Your task to perform on an android device: Go to Wikipedia Image 0: 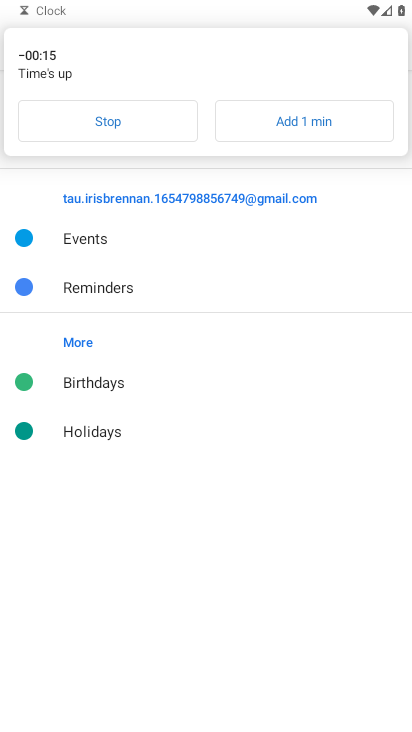
Step 0: click (138, 119)
Your task to perform on an android device: Go to Wikipedia Image 1: 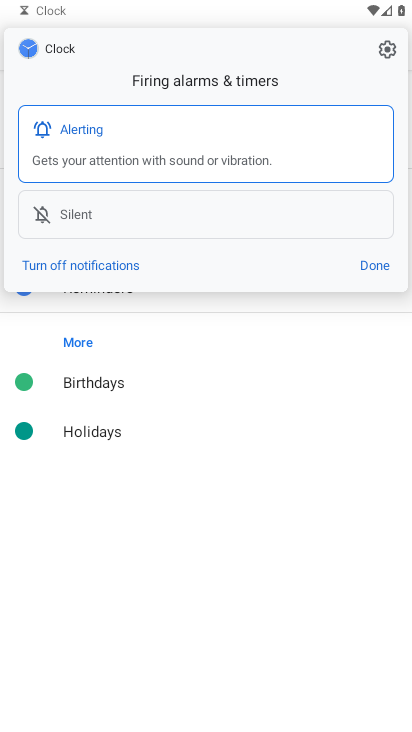
Step 1: press back button
Your task to perform on an android device: Go to Wikipedia Image 2: 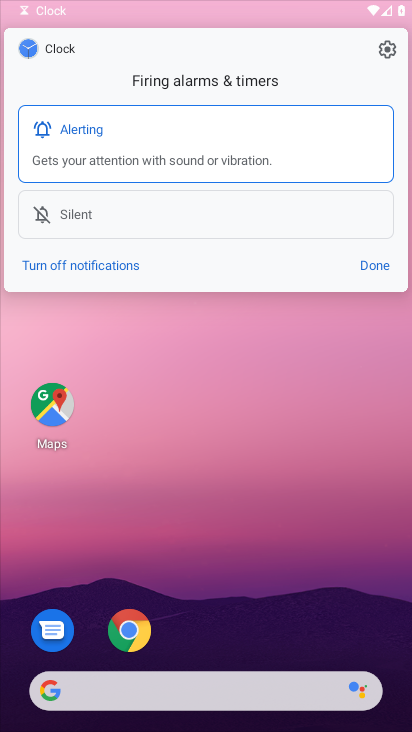
Step 2: press home button
Your task to perform on an android device: Go to Wikipedia Image 3: 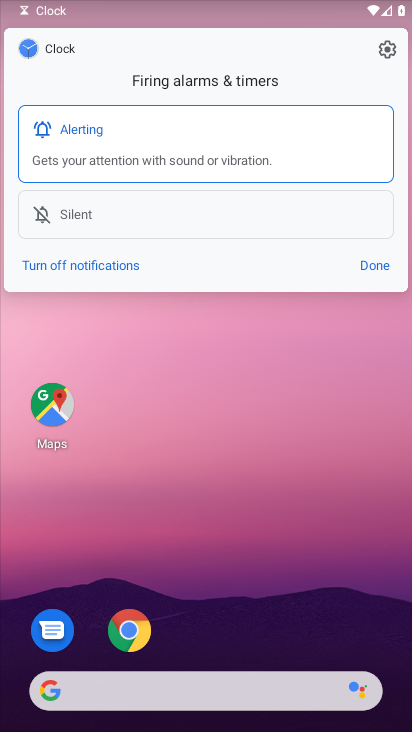
Step 3: drag from (212, 306) to (194, 166)
Your task to perform on an android device: Go to Wikipedia Image 4: 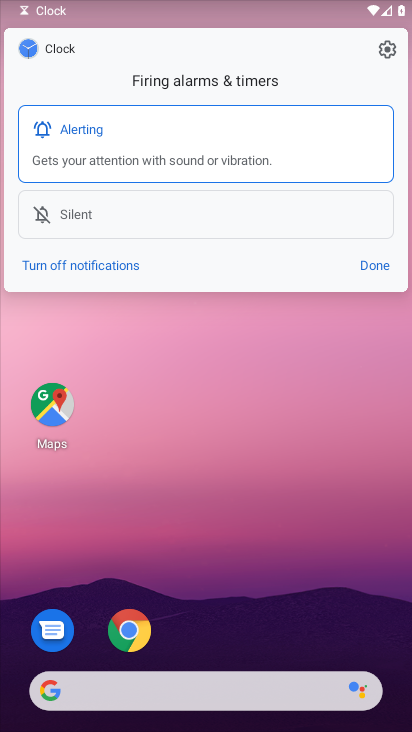
Step 4: click (227, 454)
Your task to perform on an android device: Go to Wikipedia Image 5: 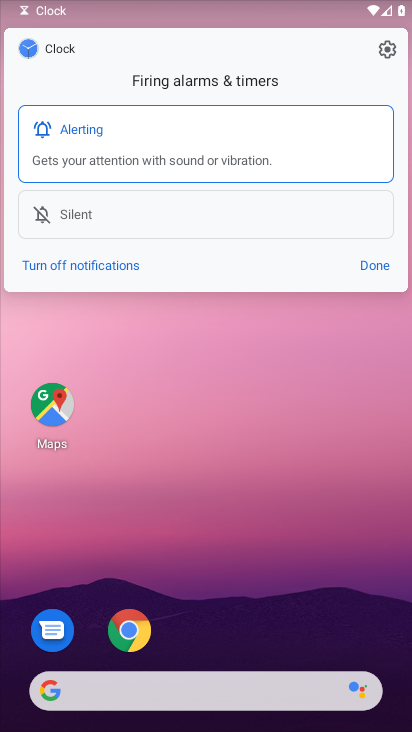
Step 5: click (244, 450)
Your task to perform on an android device: Go to Wikipedia Image 6: 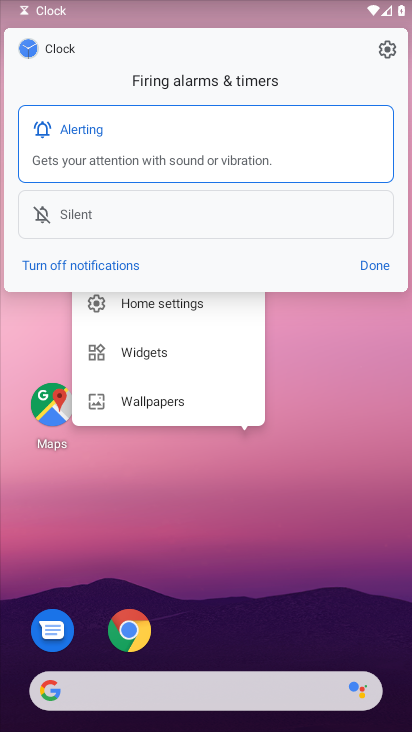
Step 6: click (300, 432)
Your task to perform on an android device: Go to Wikipedia Image 7: 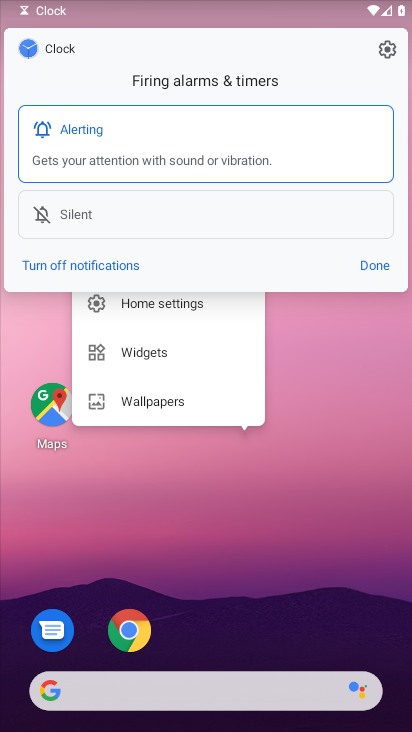
Step 7: click (316, 417)
Your task to perform on an android device: Go to Wikipedia Image 8: 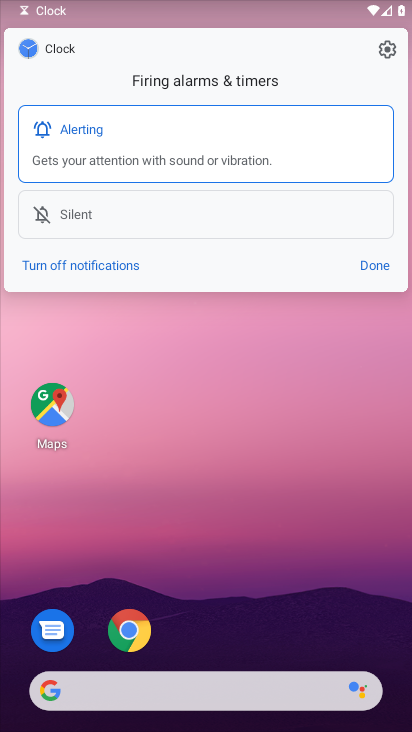
Step 8: click (322, 411)
Your task to perform on an android device: Go to Wikipedia Image 9: 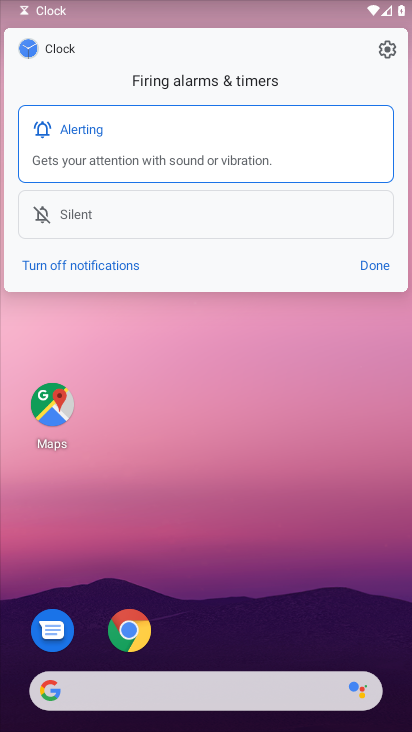
Step 9: click (334, 407)
Your task to perform on an android device: Go to Wikipedia Image 10: 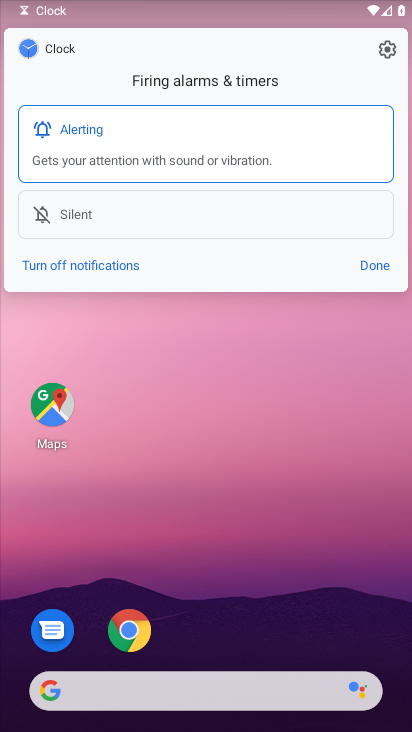
Step 10: click (375, 265)
Your task to perform on an android device: Go to Wikipedia Image 11: 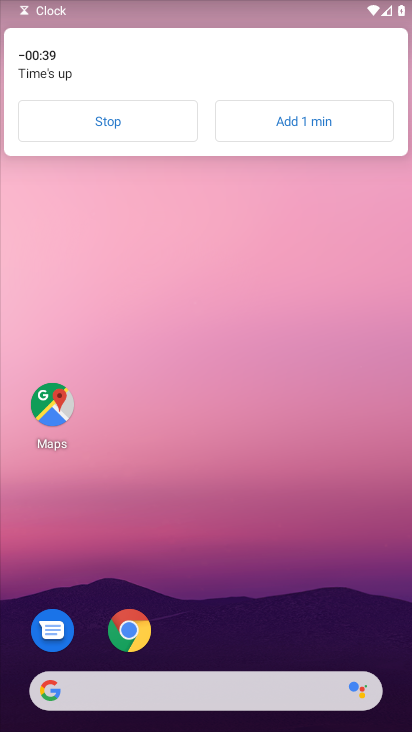
Step 11: click (385, 266)
Your task to perform on an android device: Go to Wikipedia Image 12: 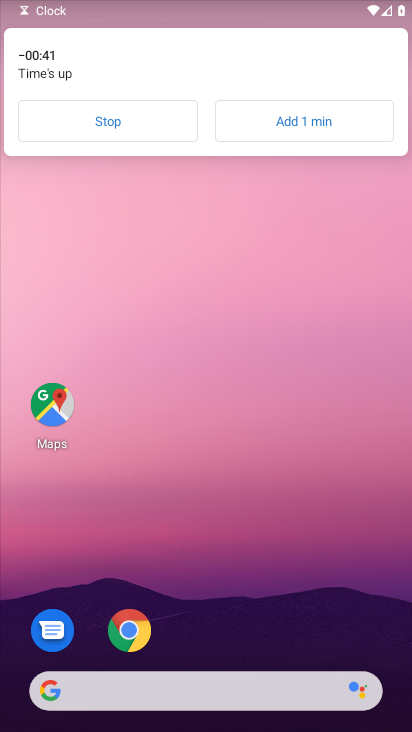
Step 12: drag from (366, 274) to (105, 116)
Your task to perform on an android device: Go to Wikipedia Image 13: 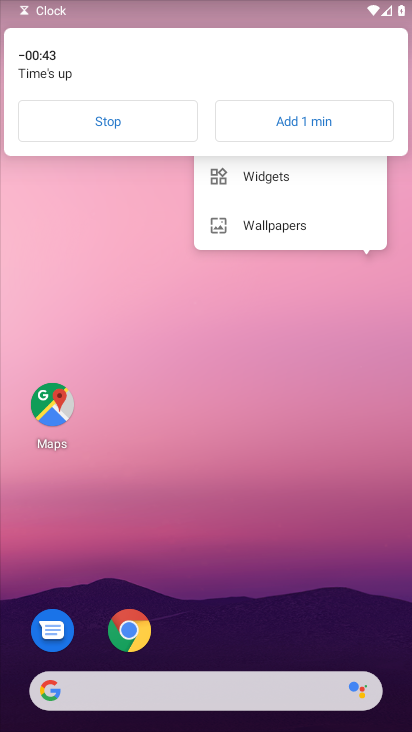
Step 13: click (107, 121)
Your task to perform on an android device: Go to Wikipedia Image 14: 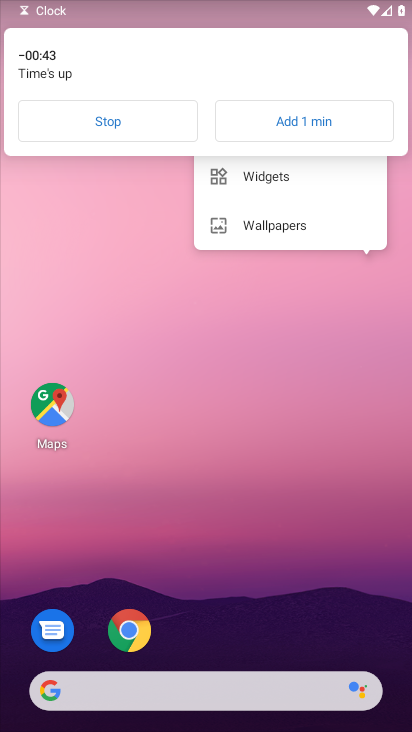
Step 14: click (139, 116)
Your task to perform on an android device: Go to Wikipedia Image 15: 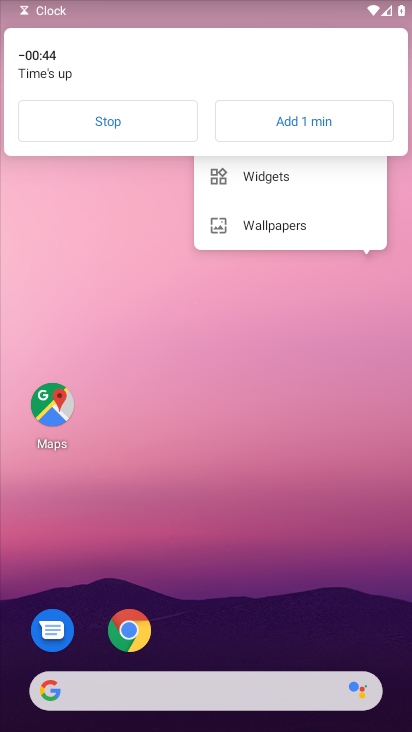
Step 15: click (139, 116)
Your task to perform on an android device: Go to Wikipedia Image 16: 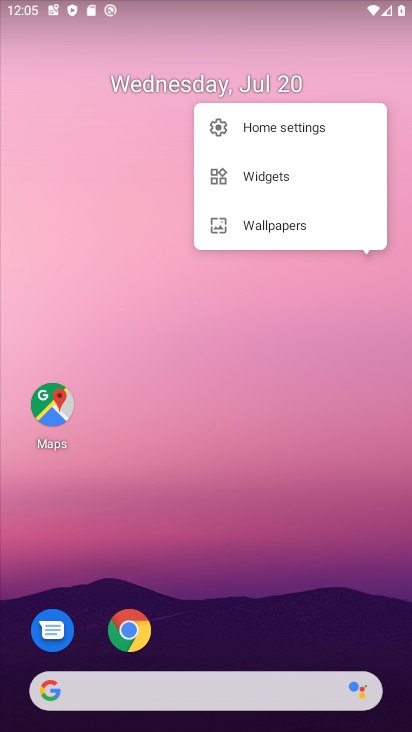
Step 16: drag from (189, 292) to (167, 175)
Your task to perform on an android device: Go to Wikipedia Image 17: 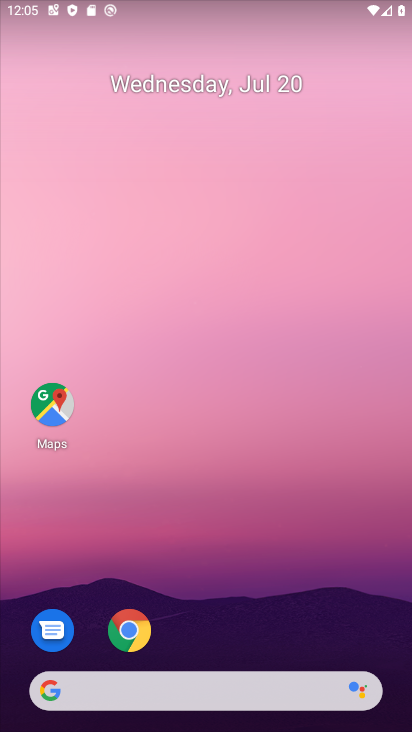
Step 17: drag from (167, 593) to (106, 129)
Your task to perform on an android device: Go to Wikipedia Image 18: 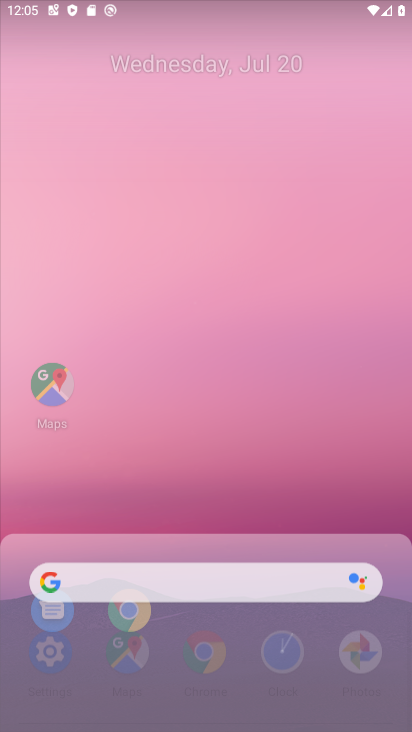
Step 18: drag from (195, 454) to (169, 120)
Your task to perform on an android device: Go to Wikipedia Image 19: 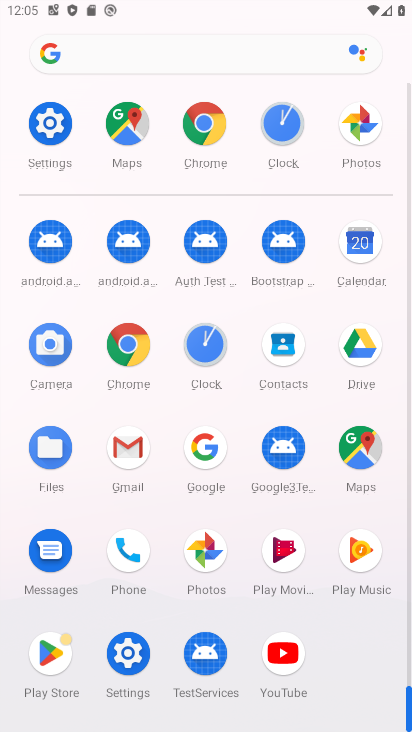
Step 19: drag from (239, 491) to (202, 108)
Your task to perform on an android device: Go to Wikipedia Image 20: 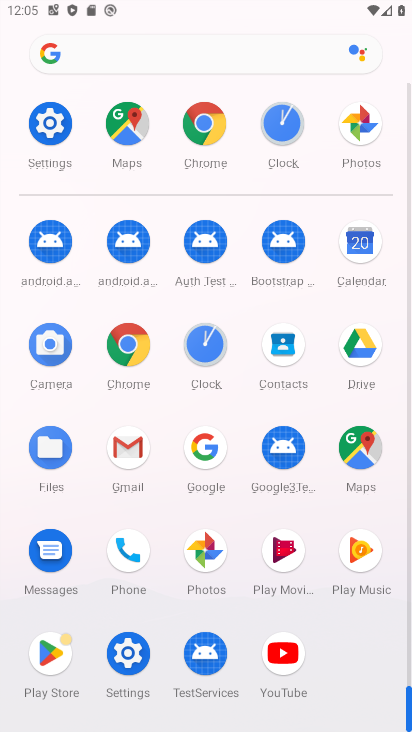
Step 20: click (204, 113)
Your task to perform on an android device: Go to Wikipedia Image 21: 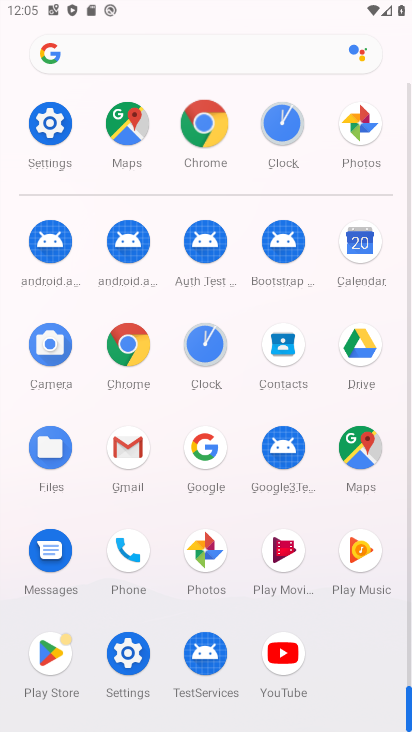
Step 21: click (204, 113)
Your task to perform on an android device: Go to Wikipedia Image 22: 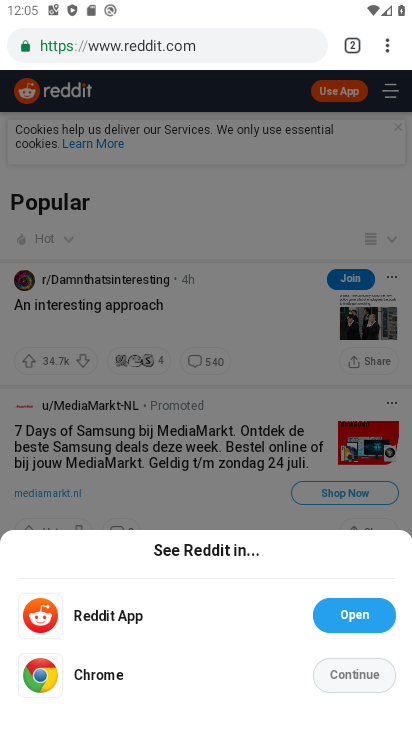
Step 22: click (361, 610)
Your task to perform on an android device: Go to Wikipedia Image 23: 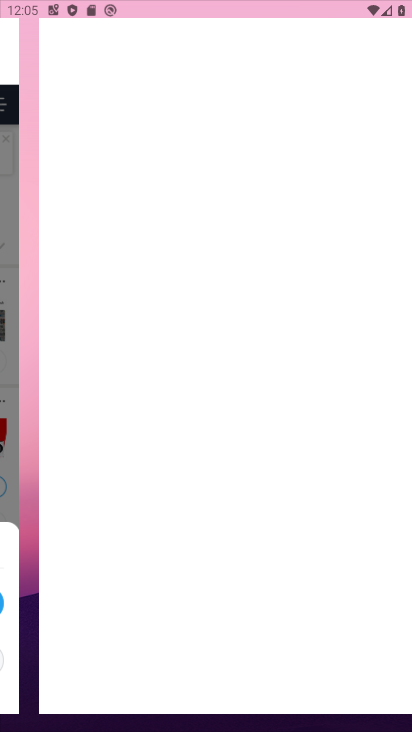
Step 23: drag from (387, 48) to (284, 446)
Your task to perform on an android device: Go to Wikipedia Image 24: 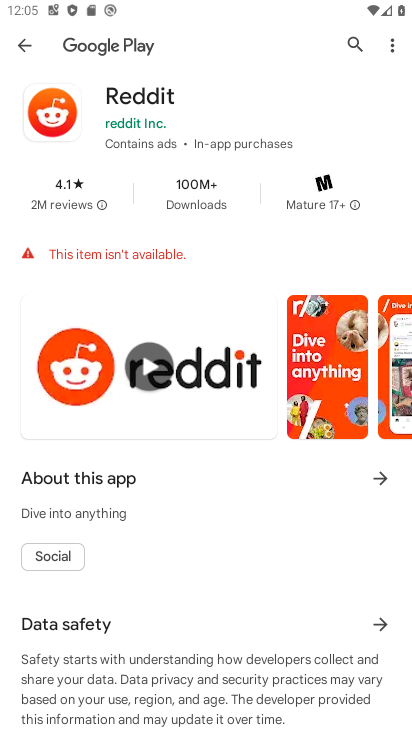
Step 24: click (28, 49)
Your task to perform on an android device: Go to Wikipedia Image 25: 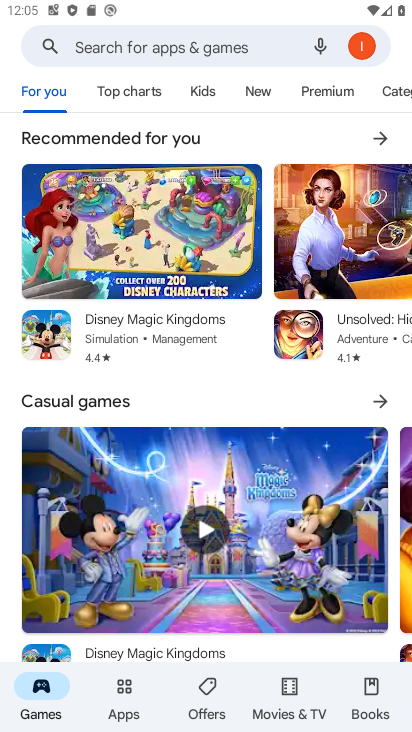
Step 25: press back button
Your task to perform on an android device: Go to Wikipedia Image 26: 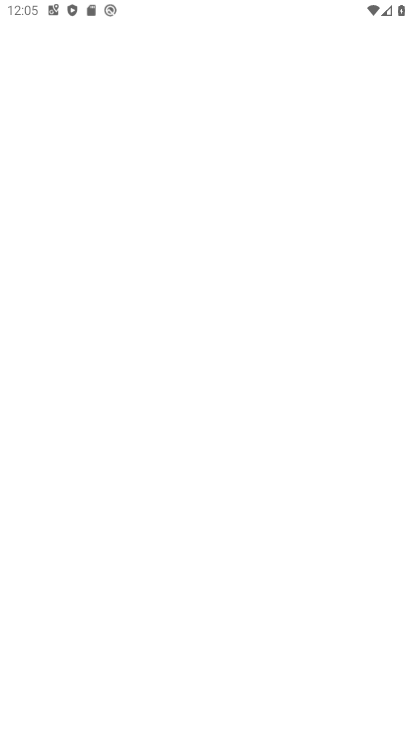
Step 26: press back button
Your task to perform on an android device: Go to Wikipedia Image 27: 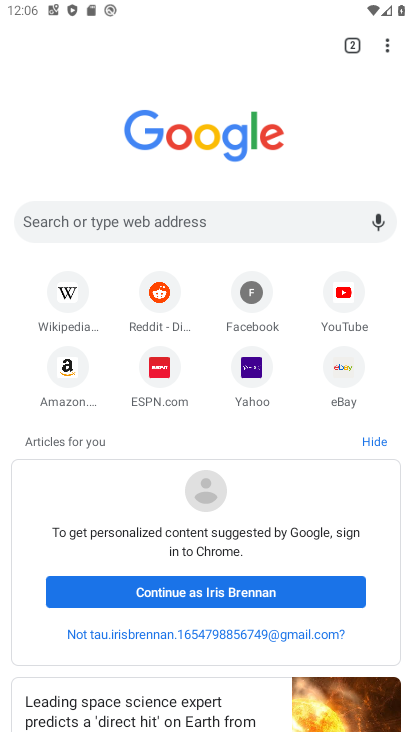
Step 27: click (388, 49)
Your task to perform on an android device: Go to Wikipedia Image 28: 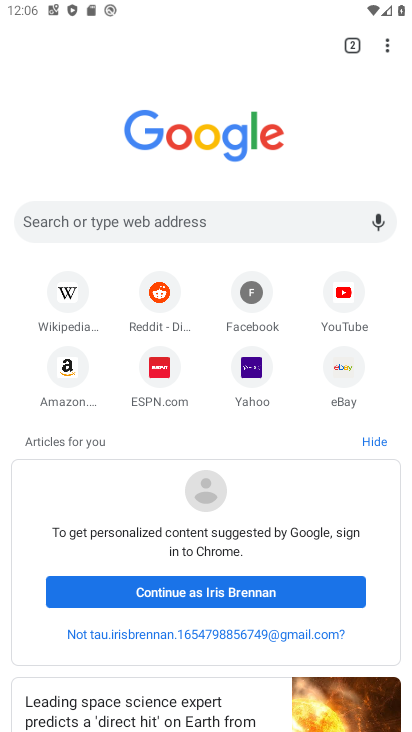
Step 28: click (62, 295)
Your task to perform on an android device: Go to Wikipedia Image 29: 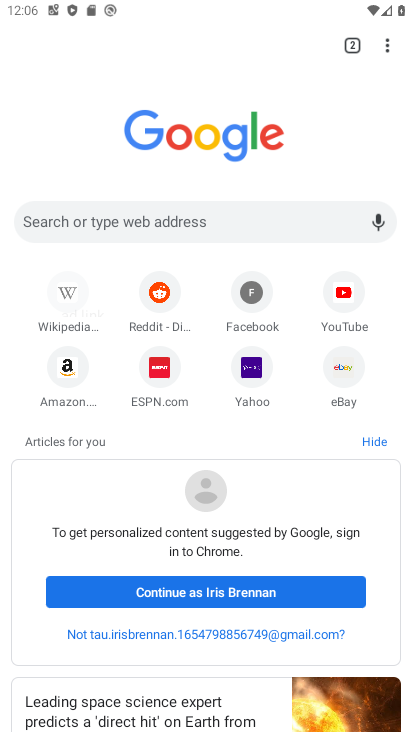
Step 29: click (62, 295)
Your task to perform on an android device: Go to Wikipedia Image 30: 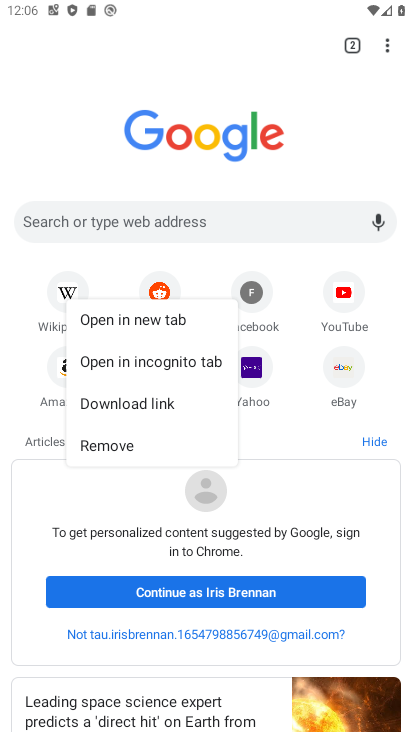
Step 30: click (66, 290)
Your task to perform on an android device: Go to Wikipedia Image 31: 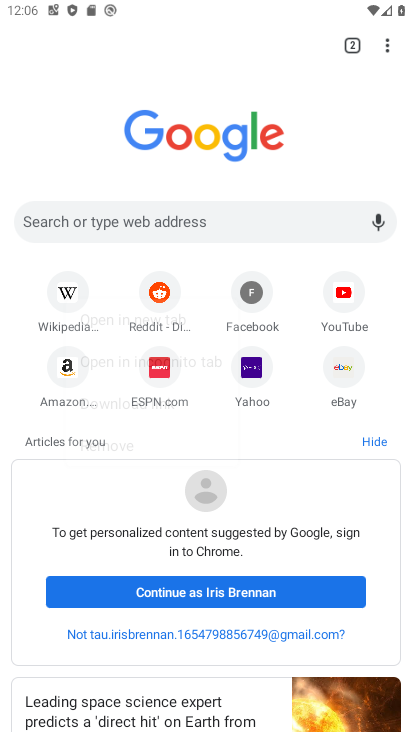
Step 31: click (73, 287)
Your task to perform on an android device: Go to Wikipedia Image 32: 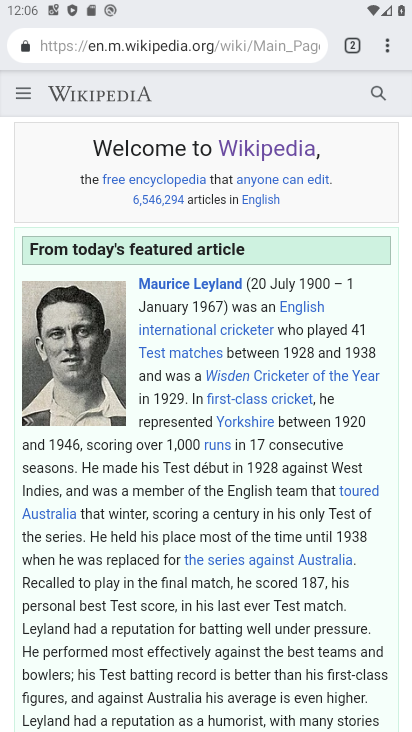
Step 32: task complete